Your task to perform on an android device: Open Reddit.com Image 0: 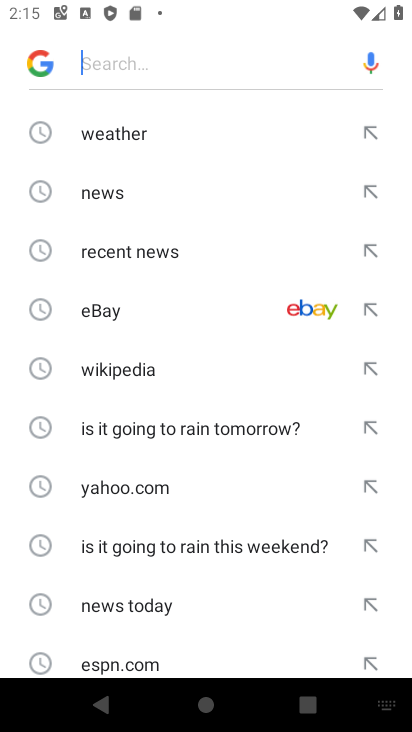
Step 0: click (195, 63)
Your task to perform on an android device: Open Reddit.com Image 1: 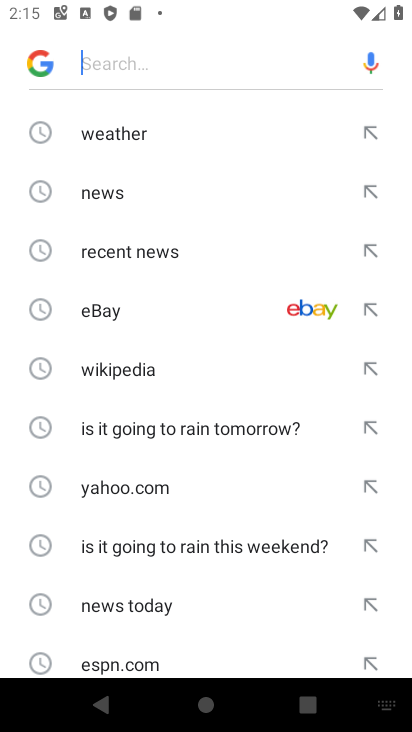
Step 1: type "reddit"
Your task to perform on an android device: Open Reddit.com Image 2: 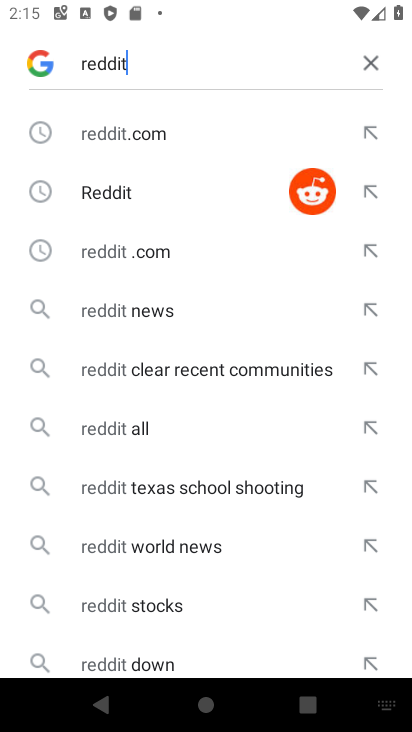
Step 2: click (153, 134)
Your task to perform on an android device: Open Reddit.com Image 3: 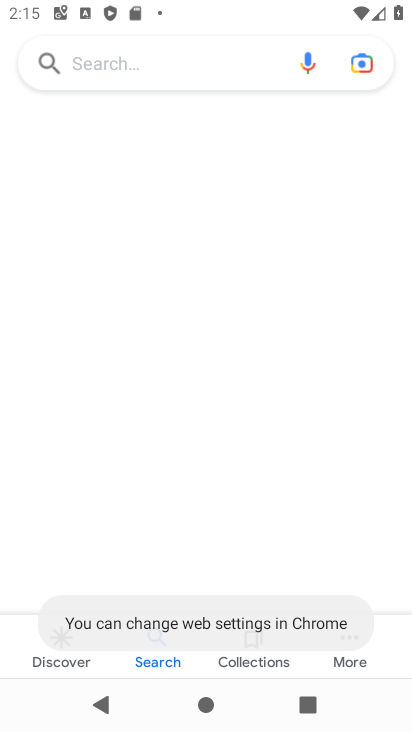
Step 3: task complete